Your task to perform on an android device: change notification settings in the gmail app Image 0: 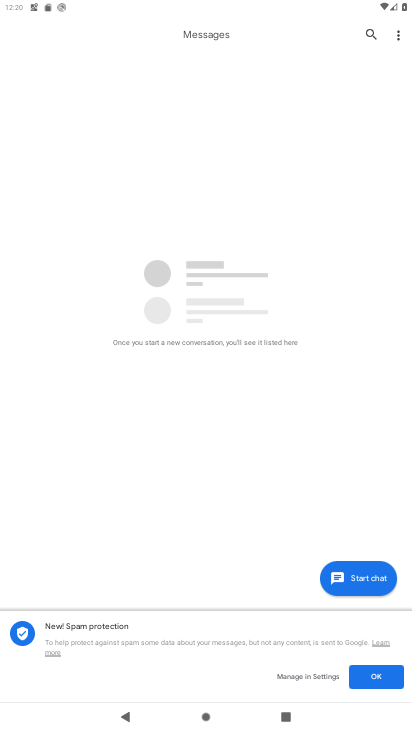
Step 0: press home button
Your task to perform on an android device: change notification settings in the gmail app Image 1: 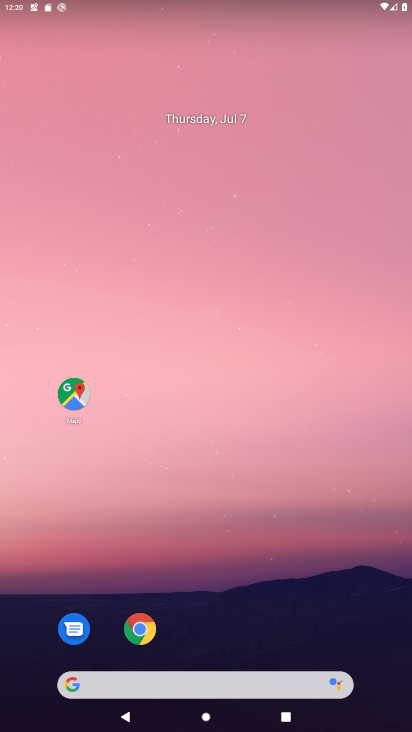
Step 1: drag from (224, 626) to (216, 121)
Your task to perform on an android device: change notification settings in the gmail app Image 2: 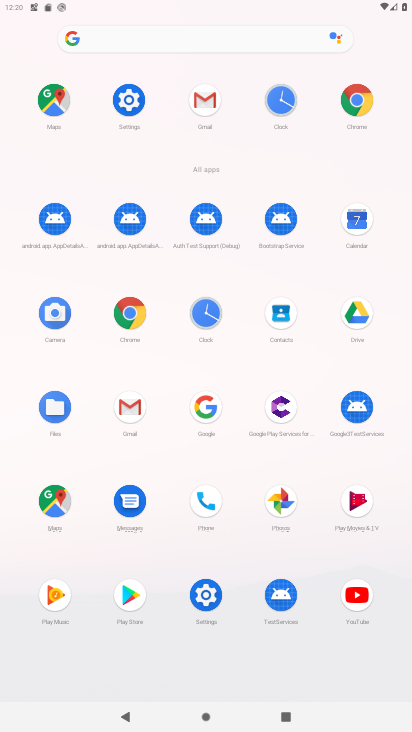
Step 2: click (210, 111)
Your task to perform on an android device: change notification settings in the gmail app Image 3: 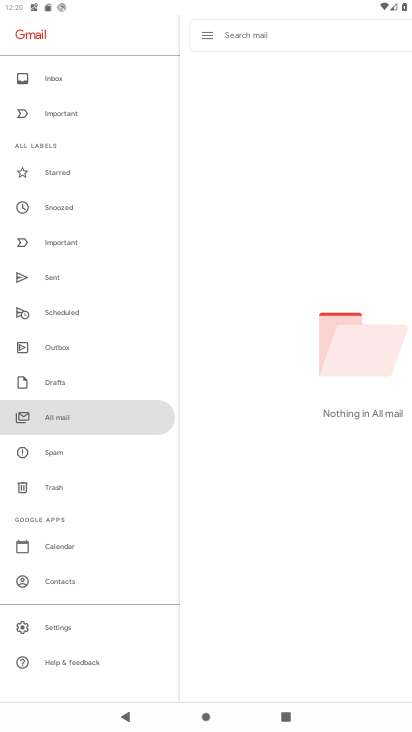
Step 3: click (73, 627)
Your task to perform on an android device: change notification settings in the gmail app Image 4: 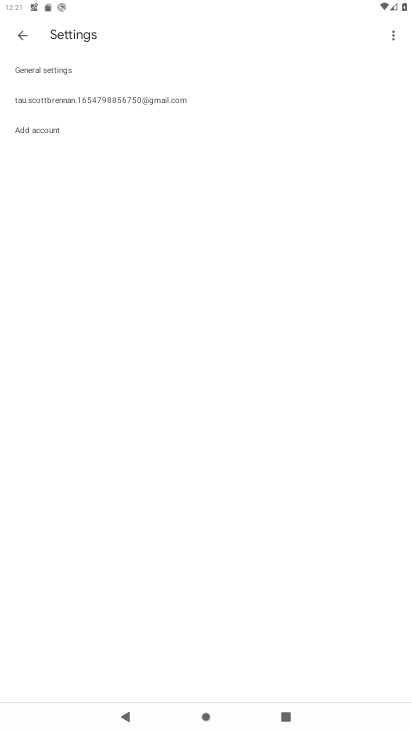
Step 4: click (155, 103)
Your task to perform on an android device: change notification settings in the gmail app Image 5: 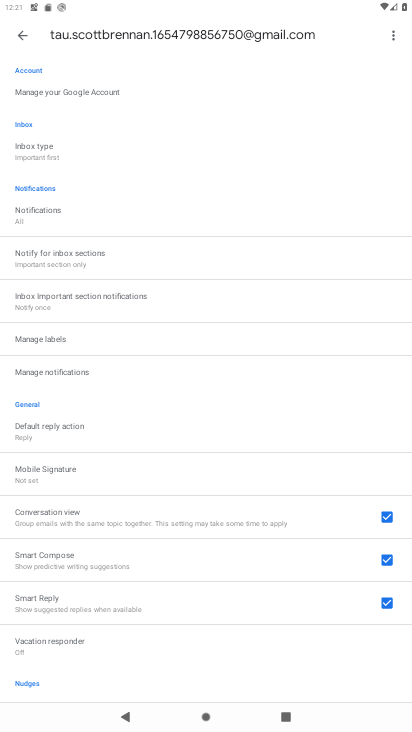
Step 5: click (155, 367)
Your task to perform on an android device: change notification settings in the gmail app Image 6: 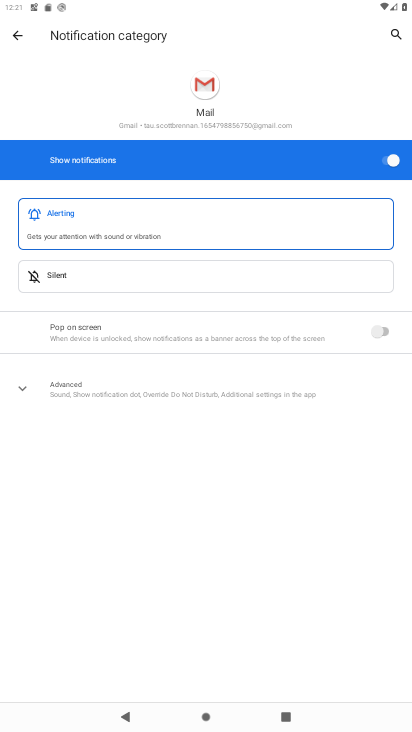
Step 6: click (388, 331)
Your task to perform on an android device: change notification settings in the gmail app Image 7: 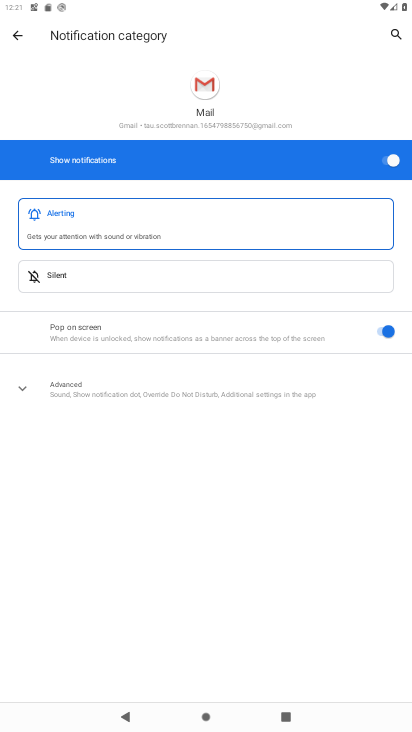
Step 7: click (325, 400)
Your task to perform on an android device: change notification settings in the gmail app Image 8: 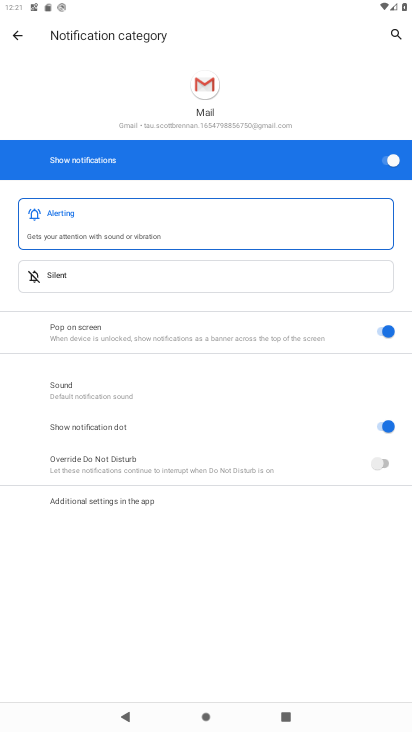
Step 8: click (386, 428)
Your task to perform on an android device: change notification settings in the gmail app Image 9: 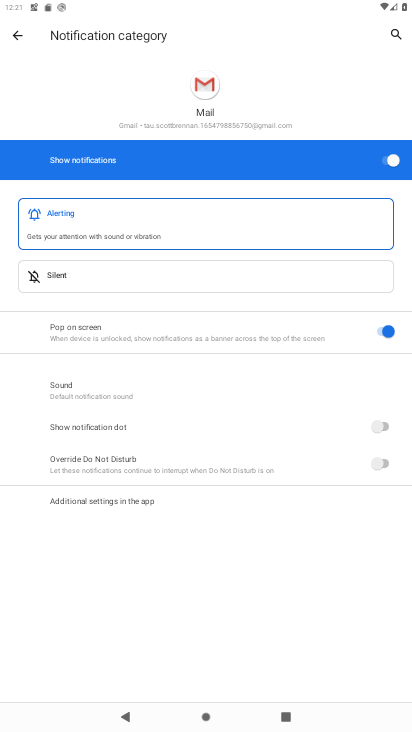
Step 9: click (386, 462)
Your task to perform on an android device: change notification settings in the gmail app Image 10: 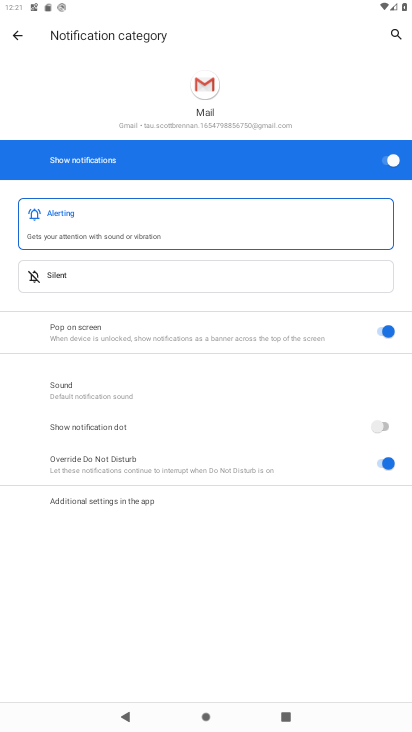
Step 10: task complete